Your task to perform on an android device: Open maps Image 0: 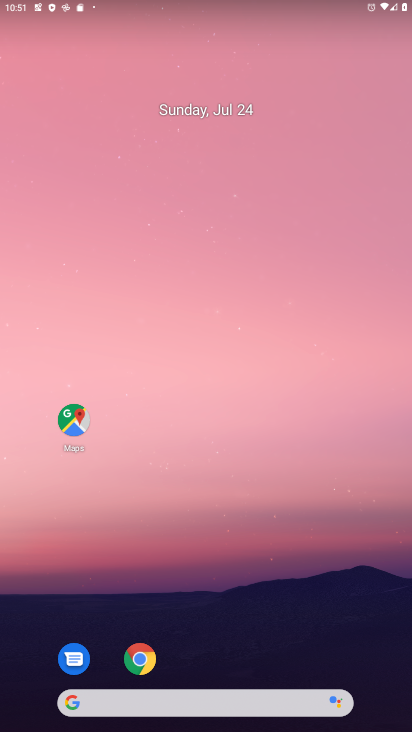
Step 0: click (78, 403)
Your task to perform on an android device: Open maps Image 1: 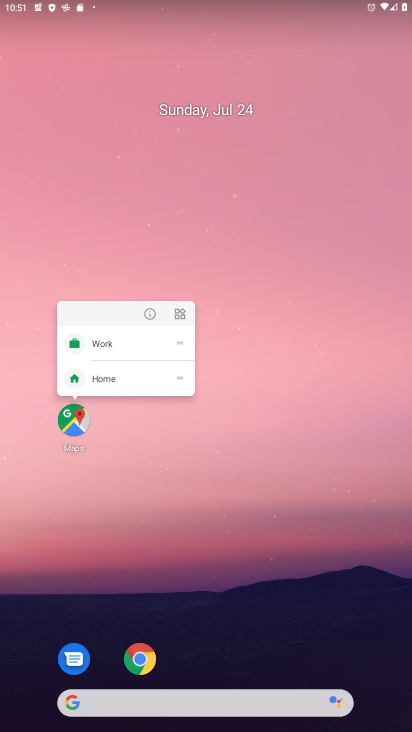
Step 1: click (73, 410)
Your task to perform on an android device: Open maps Image 2: 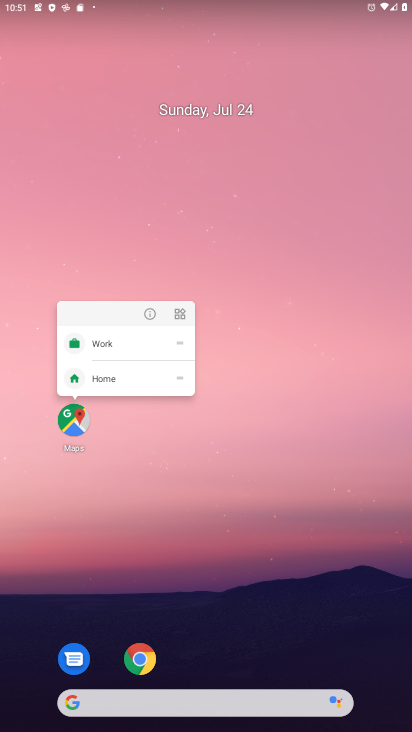
Step 2: click (73, 410)
Your task to perform on an android device: Open maps Image 3: 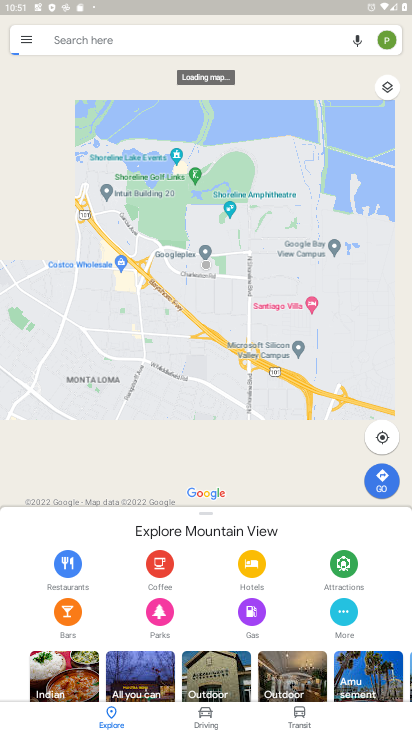
Step 3: task complete